Your task to perform on an android device: empty trash in google photos Image 0: 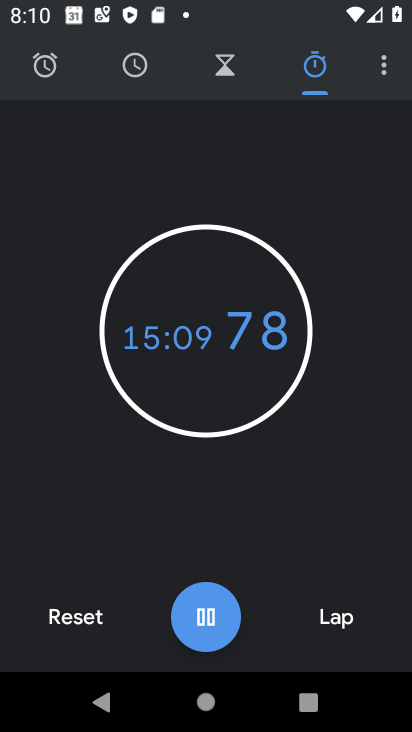
Step 0: press home button
Your task to perform on an android device: empty trash in google photos Image 1: 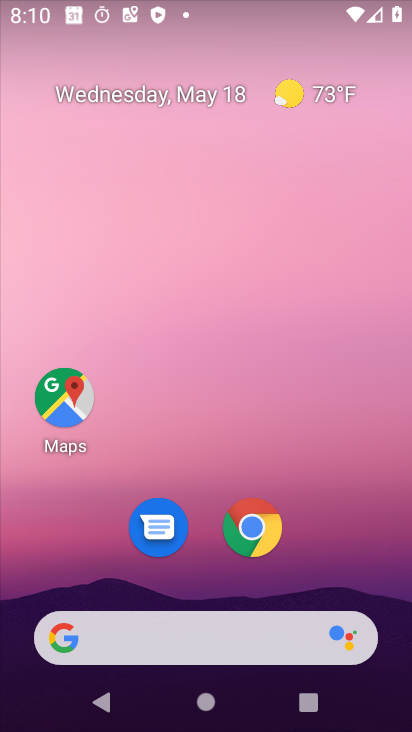
Step 1: drag from (394, 709) to (334, 113)
Your task to perform on an android device: empty trash in google photos Image 2: 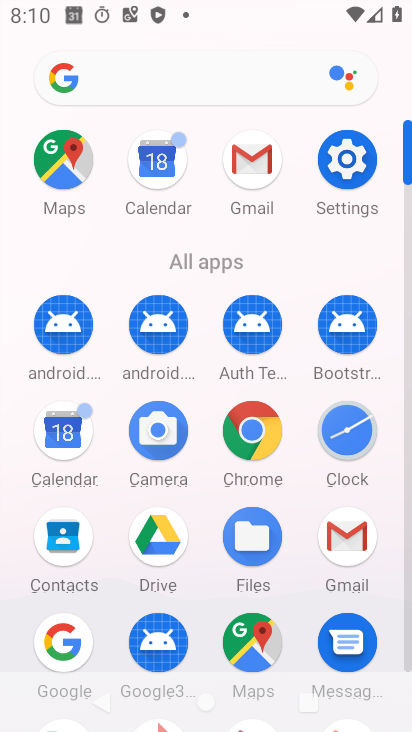
Step 2: drag from (409, 125) to (408, 36)
Your task to perform on an android device: empty trash in google photos Image 3: 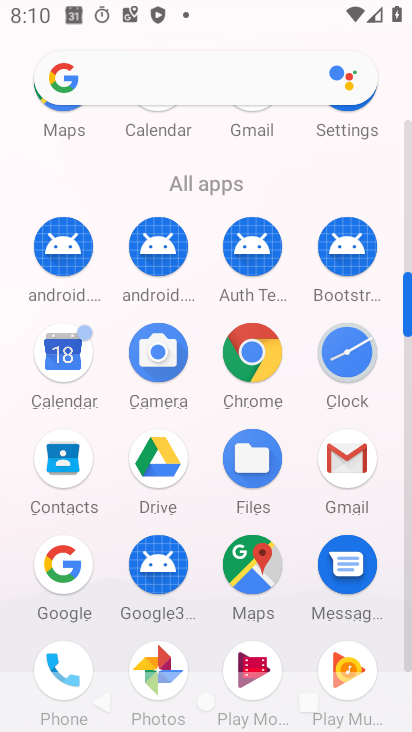
Step 3: click (165, 644)
Your task to perform on an android device: empty trash in google photos Image 4: 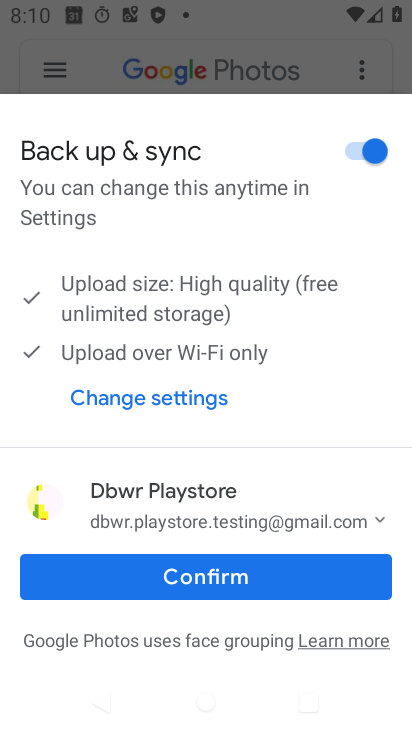
Step 4: click (206, 570)
Your task to perform on an android device: empty trash in google photos Image 5: 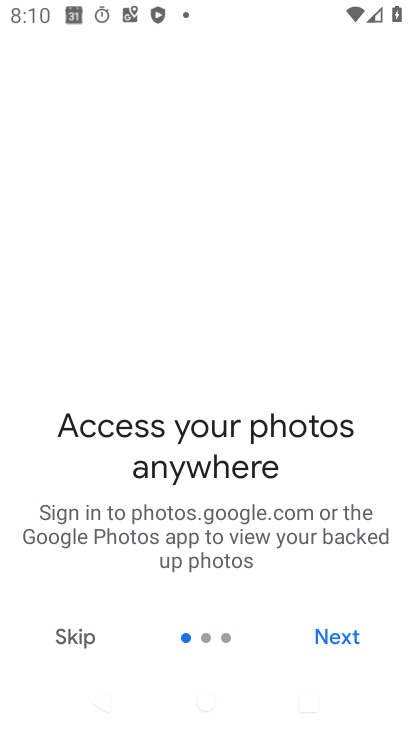
Step 5: click (336, 636)
Your task to perform on an android device: empty trash in google photos Image 6: 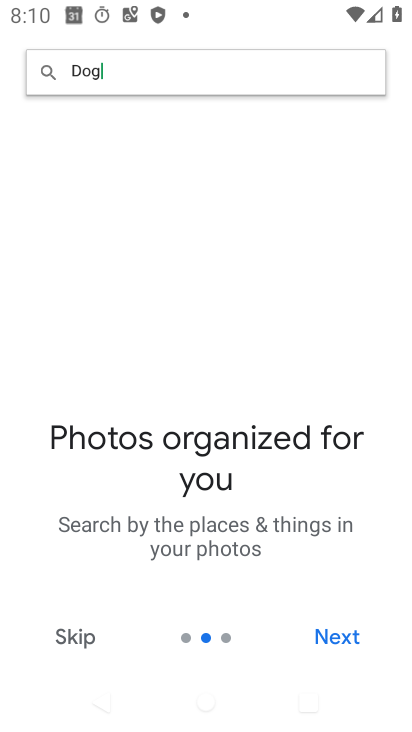
Step 6: click (328, 621)
Your task to perform on an android device: empty trash in google photos Image 7: 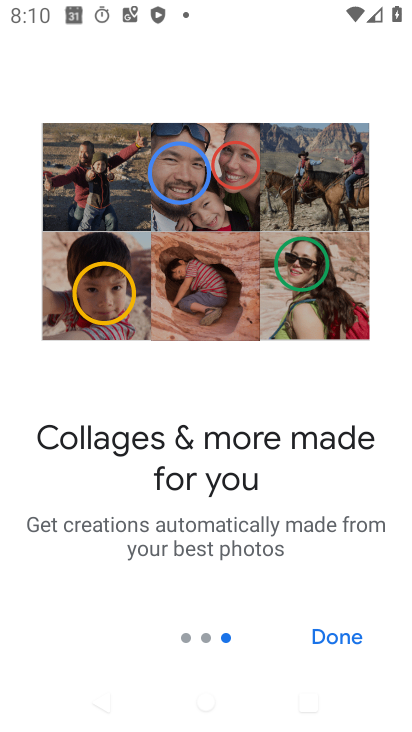
Step 7: click (328, 621)
Your task to perform on an android device: empty trash in google photos Image 8: 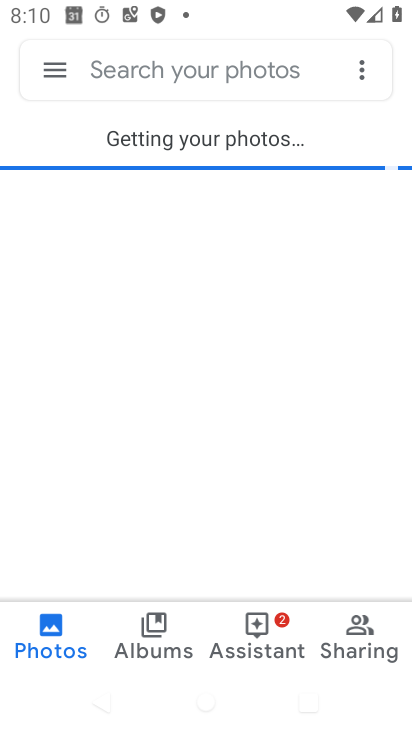
Step 8: click (49, 65)
Your task to perform on an android device: empty trash in google photos Image 9: 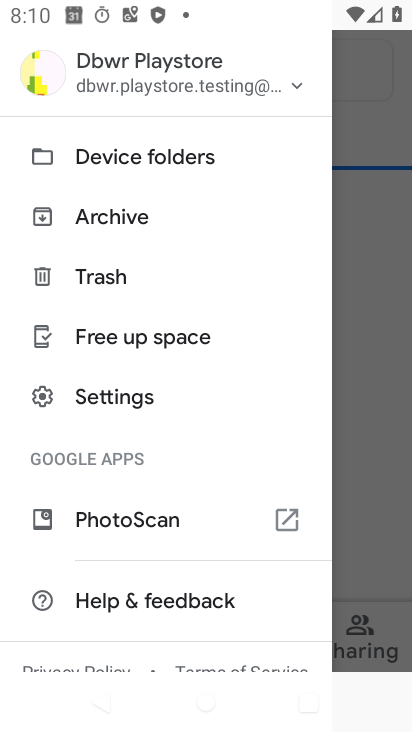
Step 9: click (100, 266)
Your task to perform on an android device: empty trash in google photos Image 10: 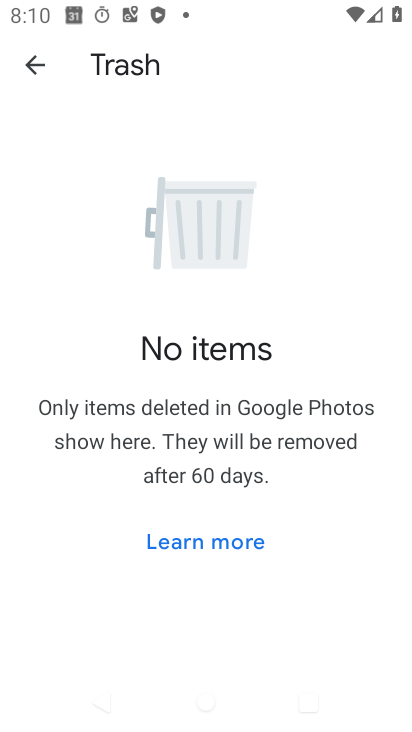
Step 10: task complete